Your task to perform on an android device: open app "Cash App" (install if not already installed), go to login, and select forgot password Image 0: 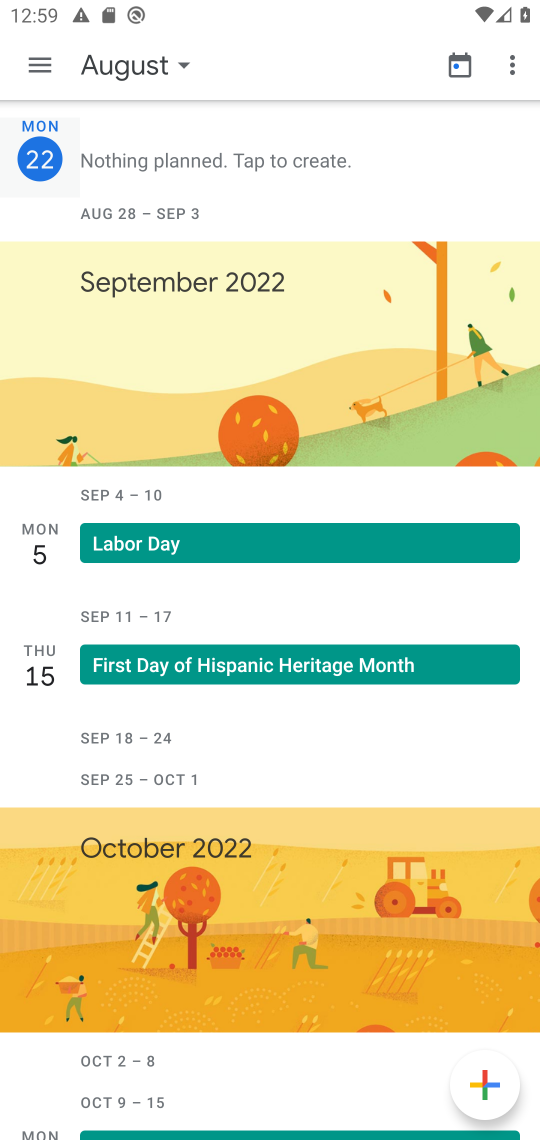
Step 0: press home button
Your task to perform on an android device: open app "Cash App" (install if not already installed), go to login, and select forgot password Image 1: 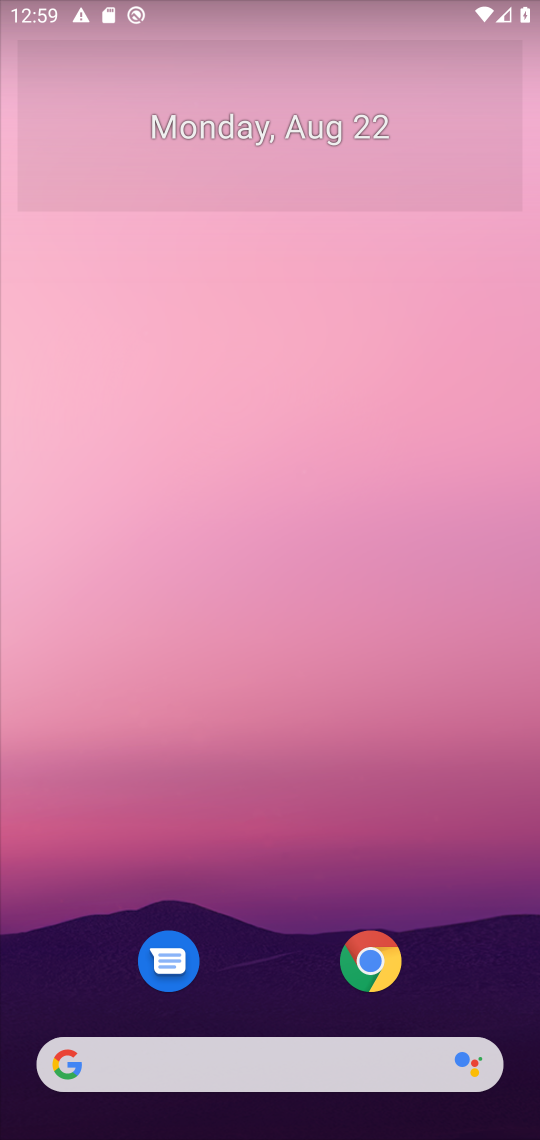
Step 1: drag from (486, 935) to (469, 255)
Your task to perform on an android device: open app "Cash App" (install if not already installed), go to login, and select forgot password Image 2: 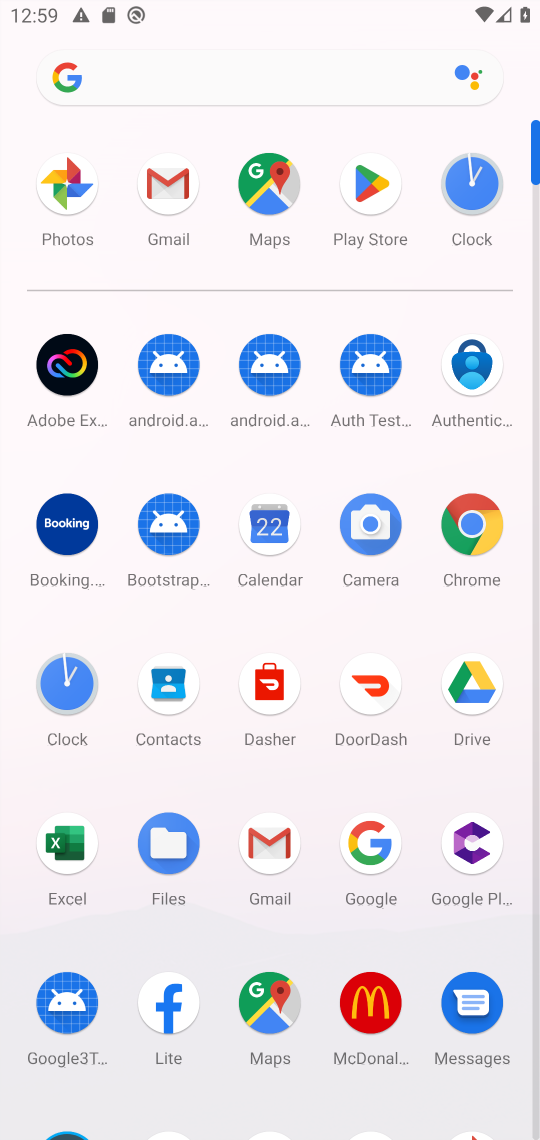
Step 2: click (376, 150)
Your task to perform on an android device: open app "Cash App" (install if not already installed), go to login, and select forgot password Image 3: 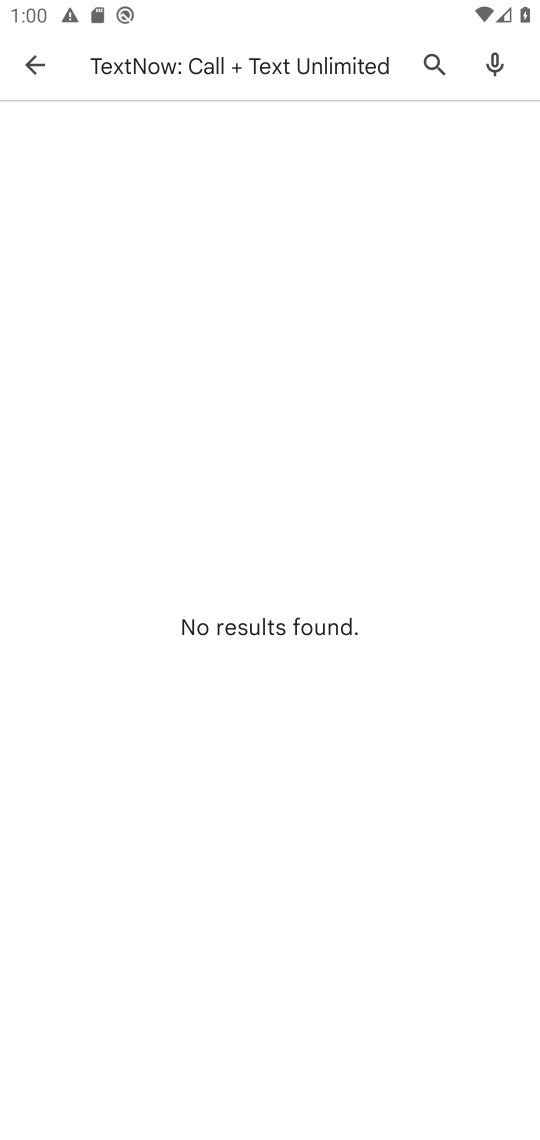
Step 3: press back button
Your task to perform on an android device: open app "Cash App" (install if not already installed), go to login, and select forgot password Image 4: 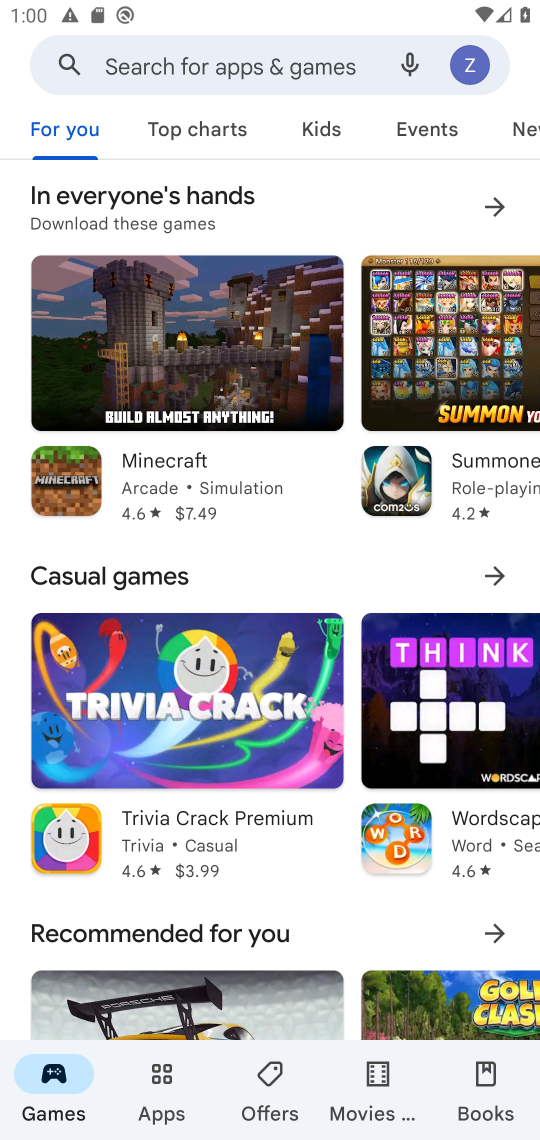
Step 4: click (228, 41)
Your task to perform on an android device: open app "Cash App" (install if not already installed), go to login, and select forgot password Image 5: 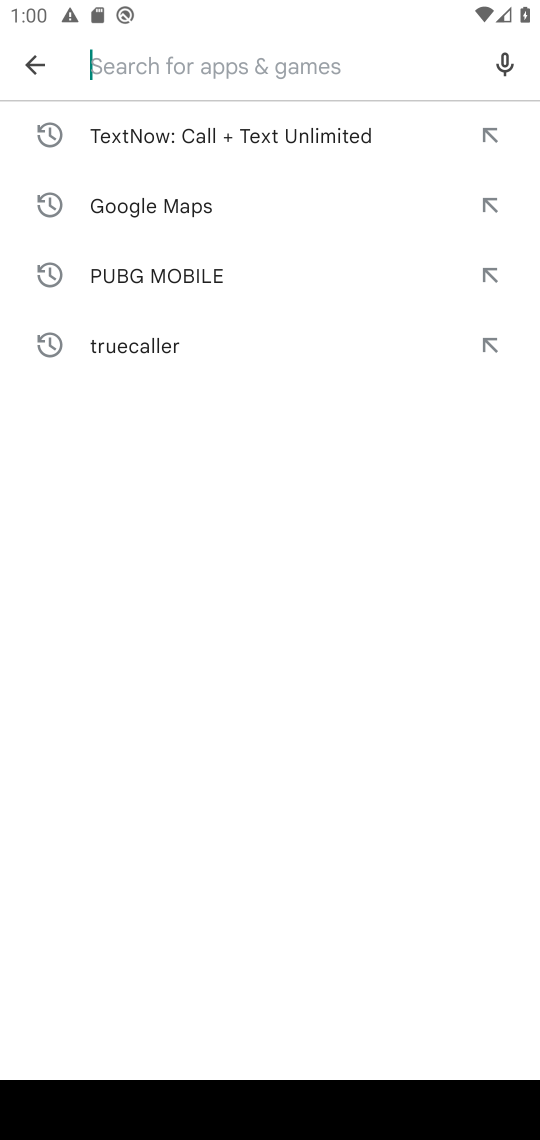
Step 5: type "Cash App"
Your task to perform on an android device: open app "Cash App" (install if not already installed), go to login, and select forgot password Image 6: 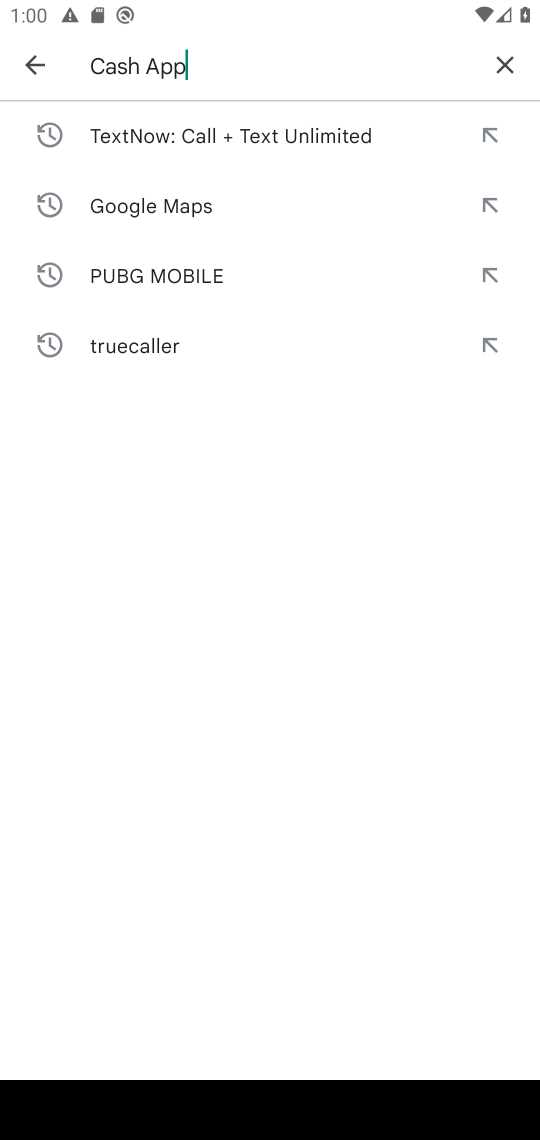
Step 6: press enter
Your task to perform on an android device: open app "Cash App" (install if not already installed), go to login, and select forgot password Image 7: 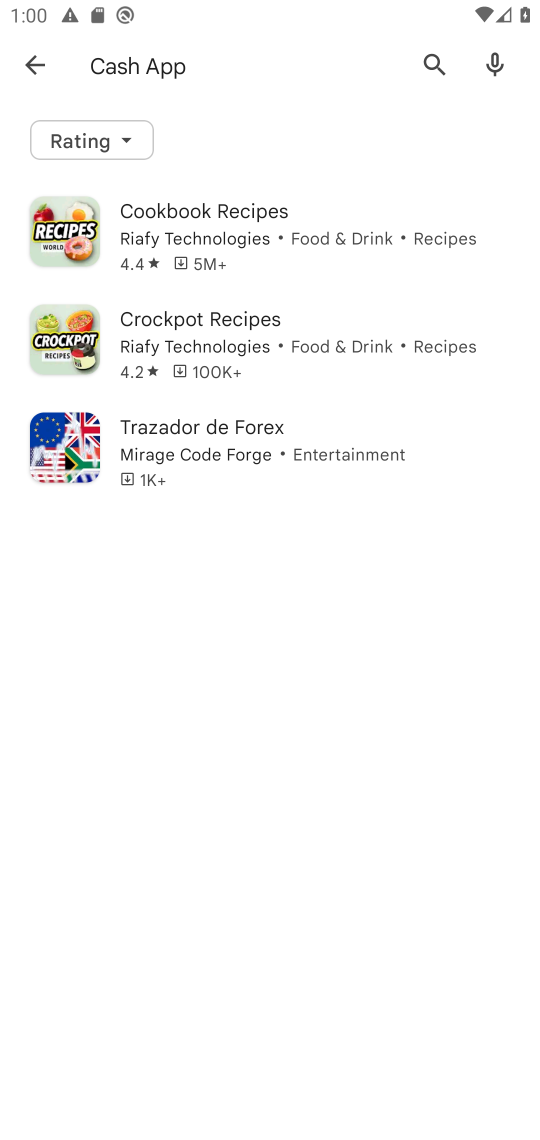
Step 7: task complete